Your task to perform on an android device: set an alarm Image 0: 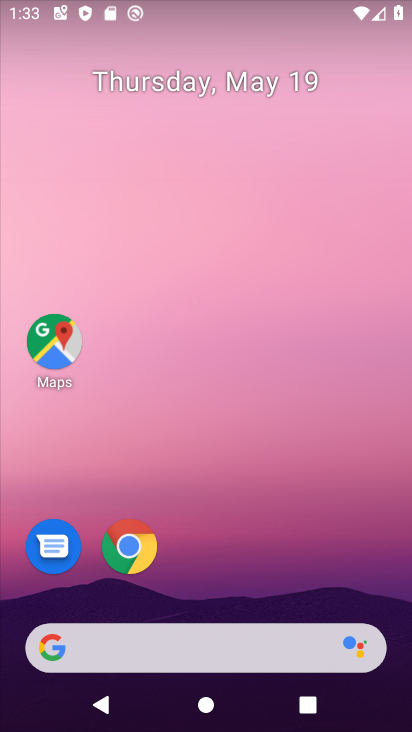
Step 0: drag from (174, 518) to (195, 230)
Your task to perform on an android device: set an alarm Image 1: 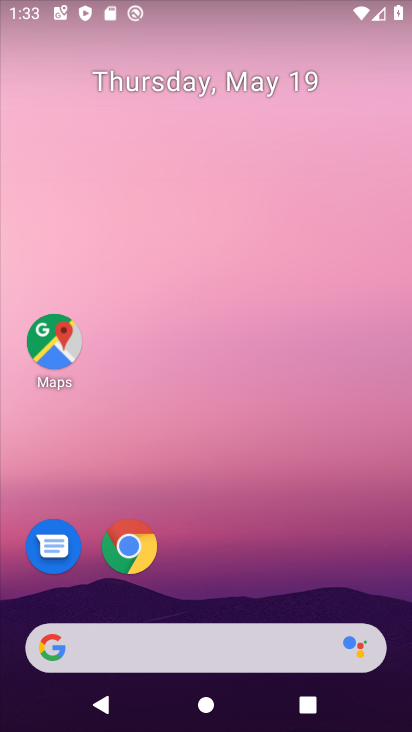
Step 1: drag from (226, 573) to (267, 161)
Your task to perform on an android device: set an alarm Image 2: 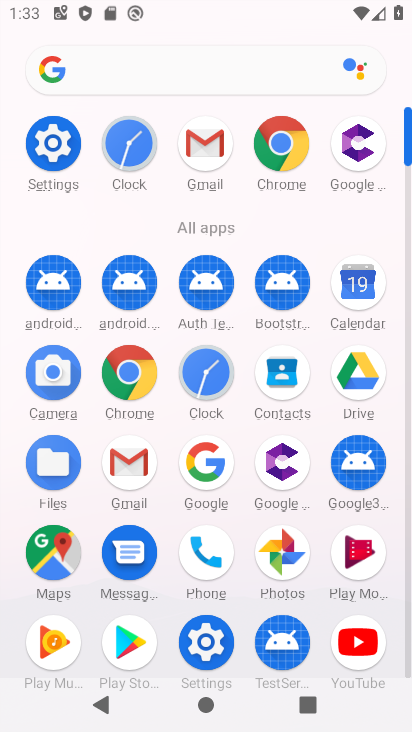
Step 2: click (129, 143)
Your task to perform on an android device: set an alarm Image 3: 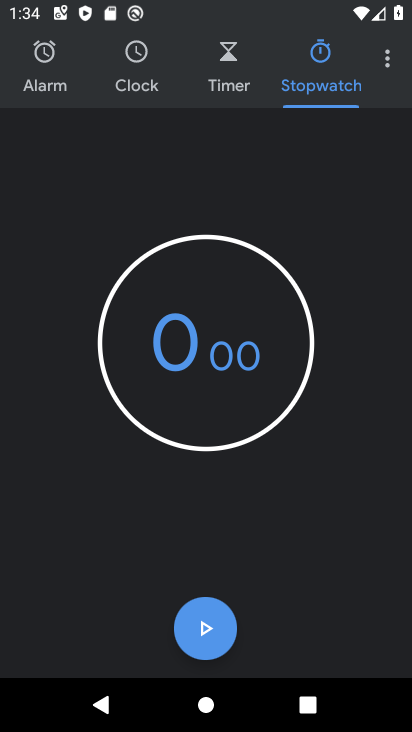
Step 3: click (45, 84)
Your task to perform on an android device: set an alarm Image 4: 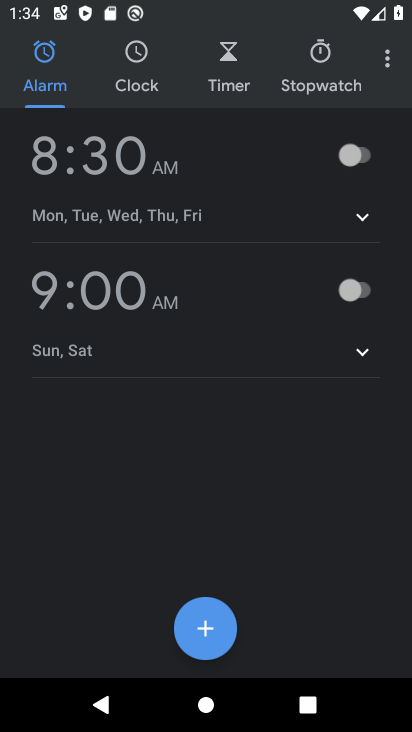
Step 4: click (356, 296)
Your task to perform on an android device: set an alarm Image 5: 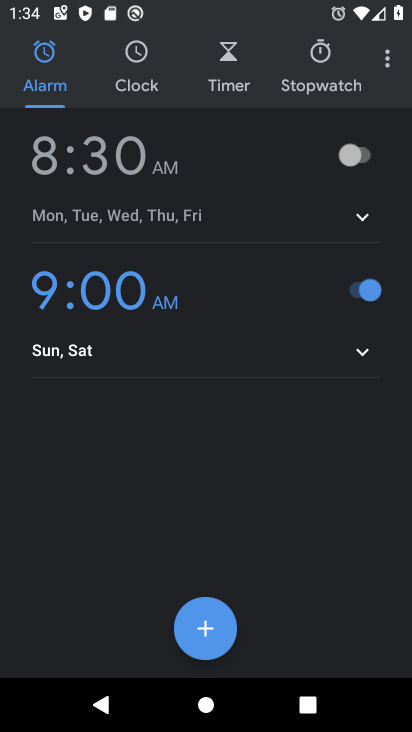
Step 5: task complete